Your task to perform on an android device: When is my next meeting? Image 0: 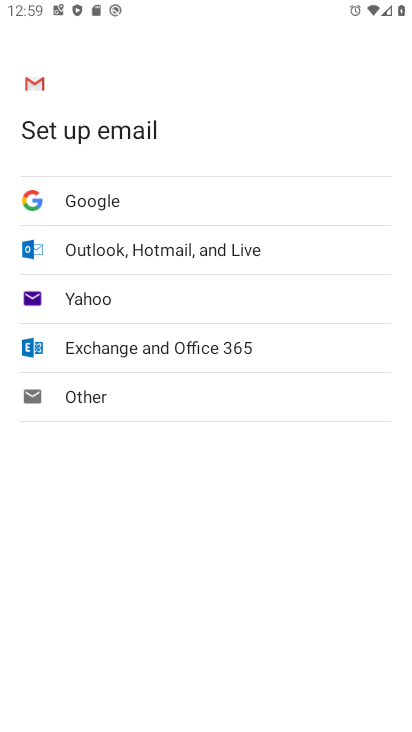
Step 0: press home button
Your task to perform on an android device: When is my next meeting? Image 1: 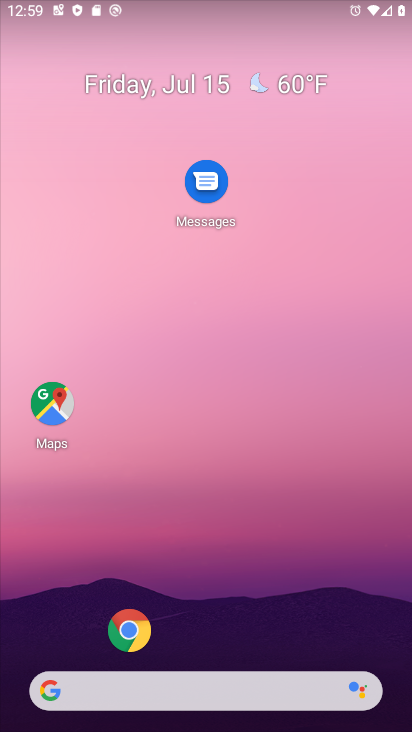
Step 1: drag from (66, 579) to (273, 43)
Your task to perform on an android device: When is my next meeting? Image 2: 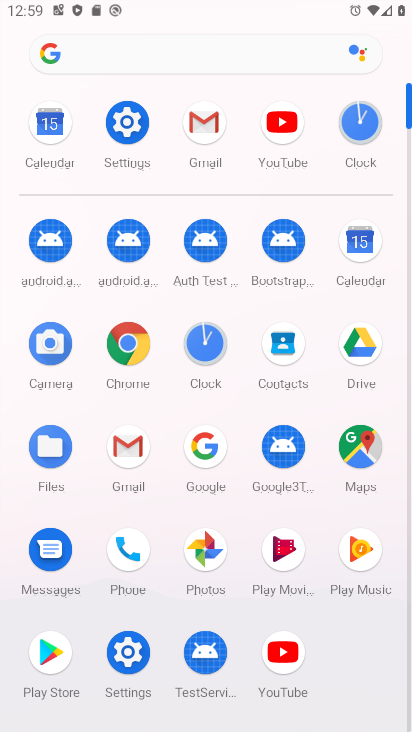
Step 2: click (357, 245)
Your task to perform on an android device: When is my next meeting? Image 3: 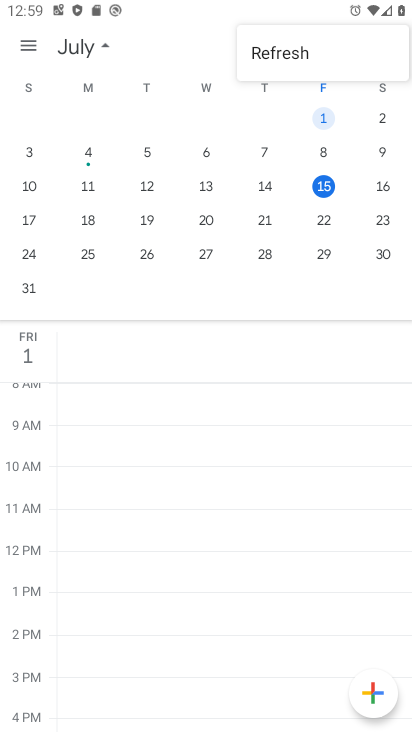
Step 3: task complete